Your task to perform on an android device: turn off data saver in the chrome app Image 0: 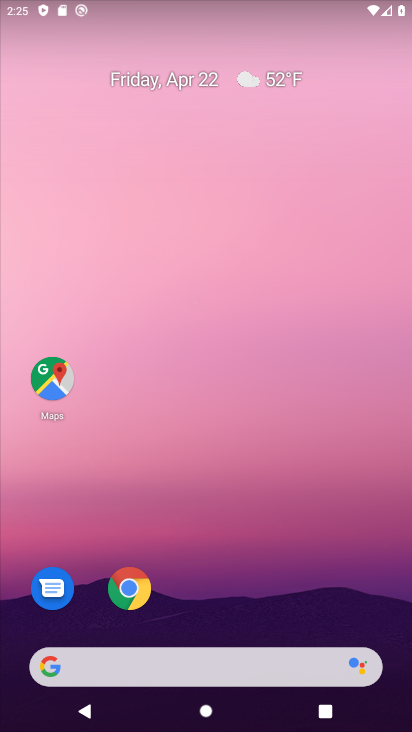
Step 0: click (128, 590)
Your task to perform on an android device: turn off data saver in the chrome app Image 1: 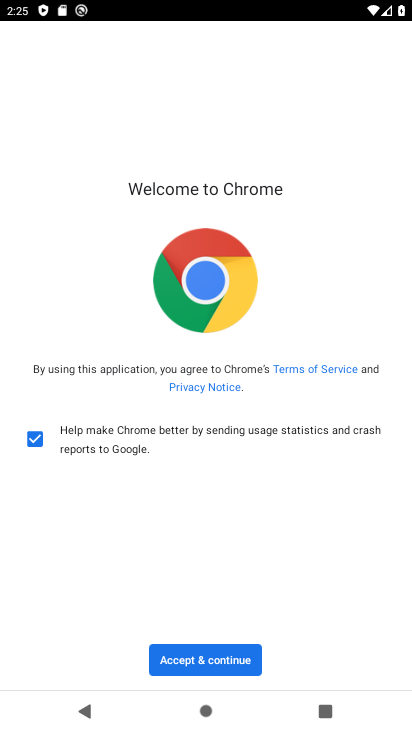
Step 1: click (182, 656)
Your task to perform on an android device: turn off data saver in the chrome app Image 2: 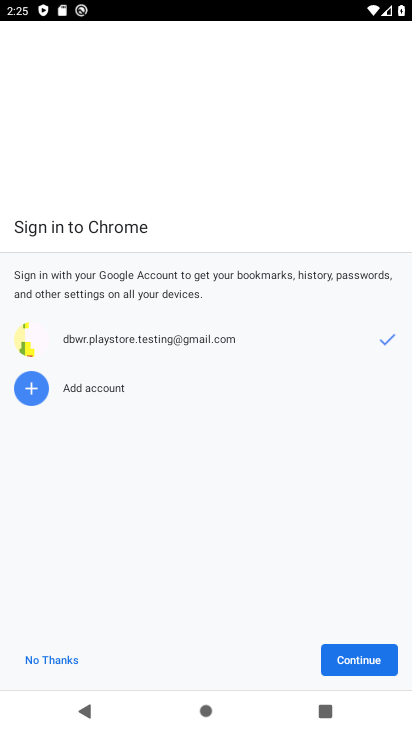
Step 2: click (35, 663)
Your task to perform on an android device: turn off data saver in the chrome app Image 3: 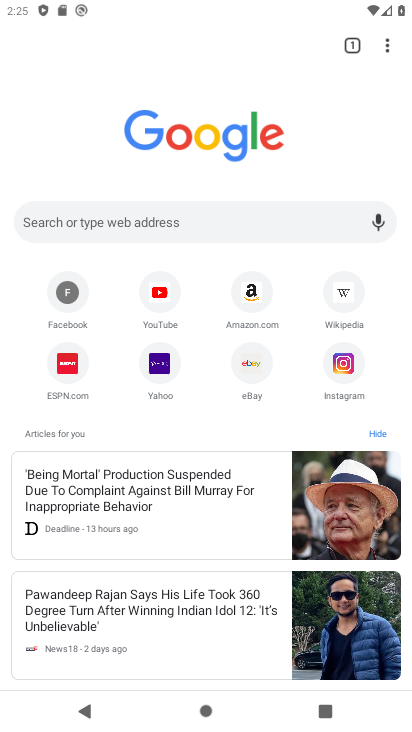
Step 3: click (388, 49)
Your task to perform on an android device: turn off data saver in the chrome app Image 4: 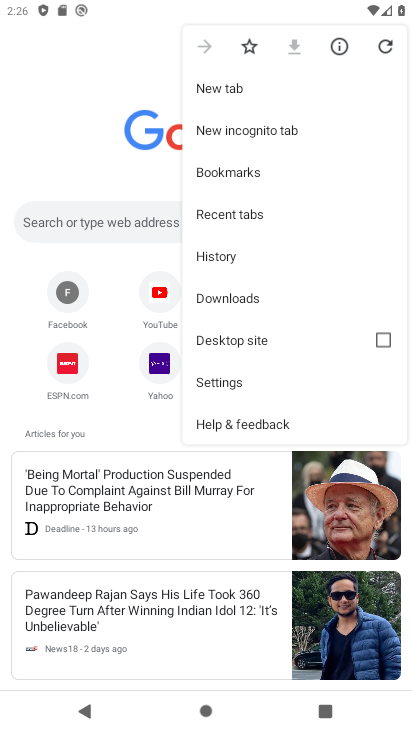
Step 4: click (223, 387)
Your task to perform on an android device: turn off data saver in the chrome app Image 5: 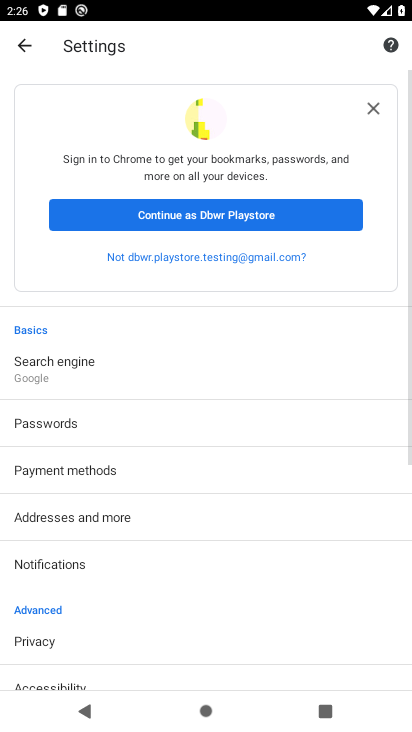
Step 5: drag from (167, 535) to (156, 247)
Your task to perform on an android device: turn off data saver in the chrome app Image 6: 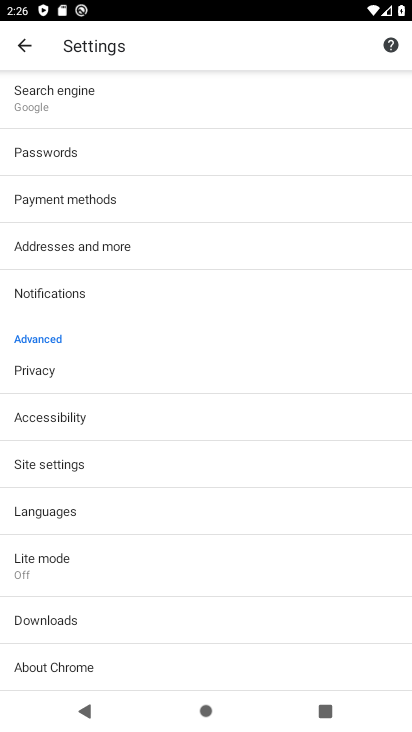
Step 6: click (49, 565)
Your task to perform on an android device: turn off data saver in the chrome app Image 7: 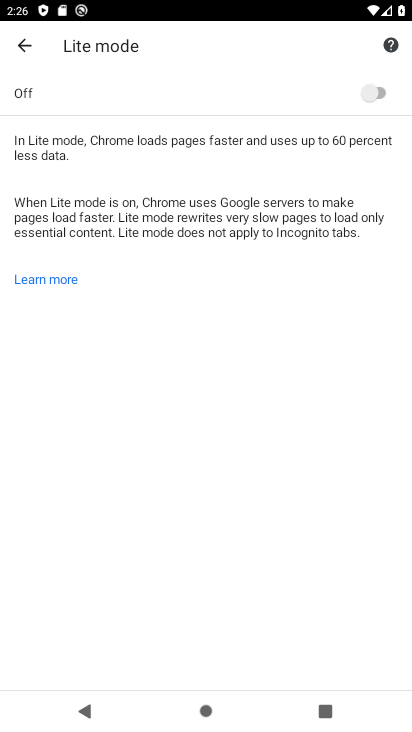
Step 7: task complete